Your task to perform on an android device: allow cookies in the chrome app Image 0: 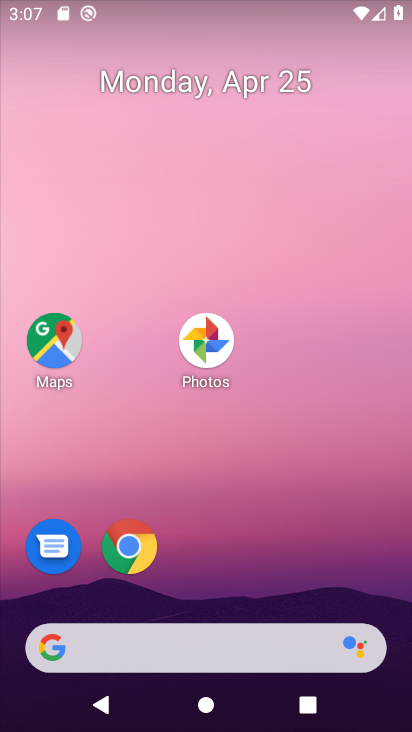
Step 0: drag from (270, 380) to (314, 7)
Your task to perform on an android device: allow cookies in the chrome app Image 1: 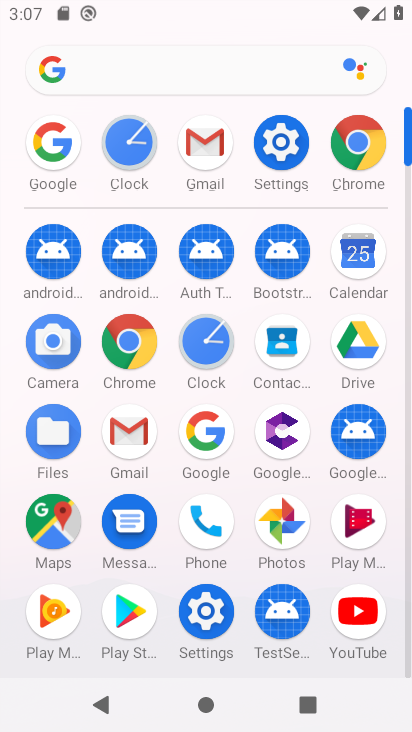
Step 1: click (357, 135)
Your task to perform on an android device: allow cookies in the chrome app Image 2: 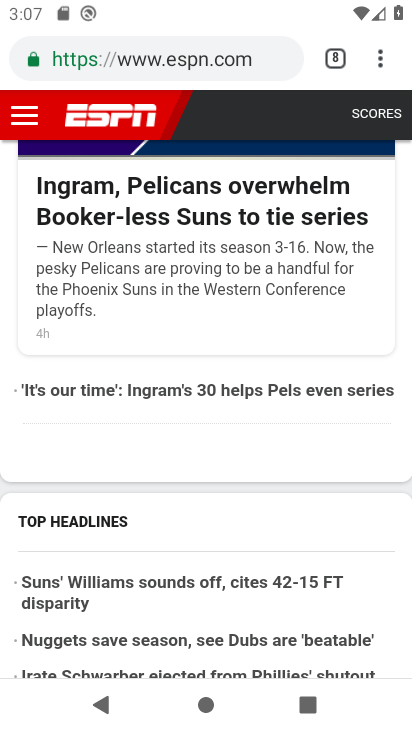
Step 2: click (366, 53)
Your task to perform on an android device: allow cookies in the chrome app Image 3: 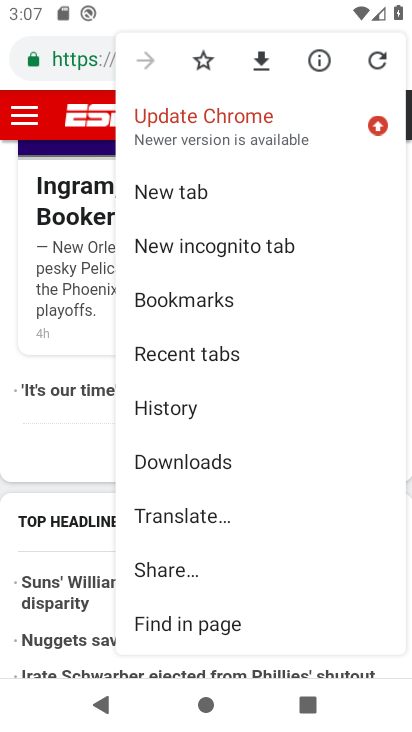
Step 3: drag from (218, 606) to (261, 217)
Your task to perform on an android device: allow cookies in the chrome app Image 4: 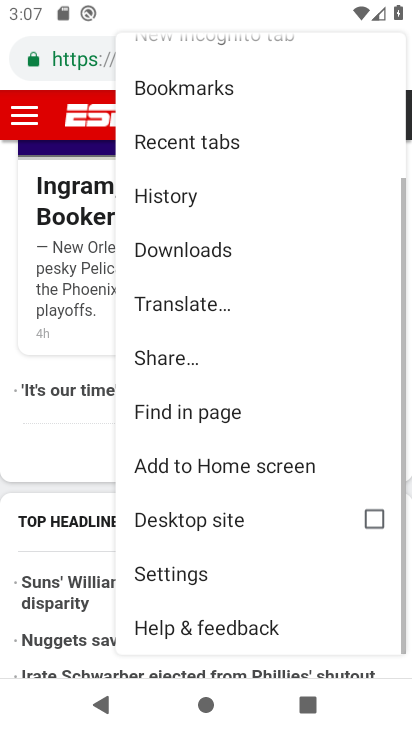
Step 4: click (170, 566)
Your task to perform on an android device: allow cookies in the chrome app Image 5: 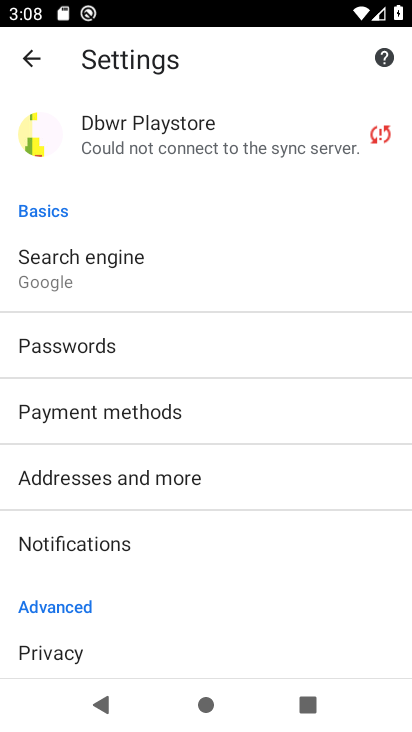
Step 5: drag from (196, 580) to (223, 232)
Your task to perform on an android device: allow cookies in the chrome app Image 6: 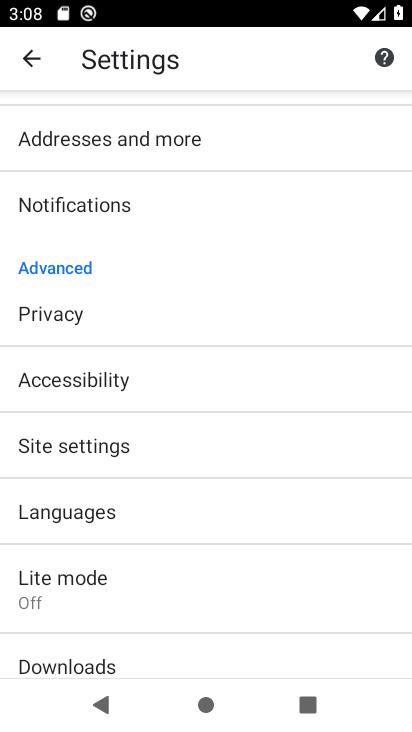
Step 6: click (136, 444)
Your task to perform on an android device: allow cookies in the chrome app Image 7: 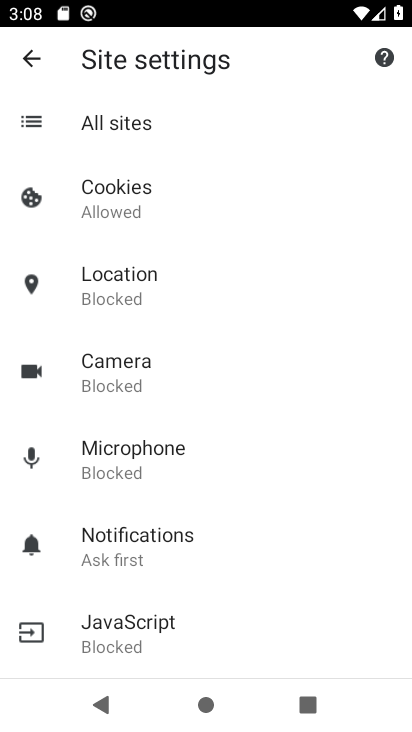
Step 7: click (156, 193)
Your task to perform on an android device: allow cookies in the chrome app Image 8: 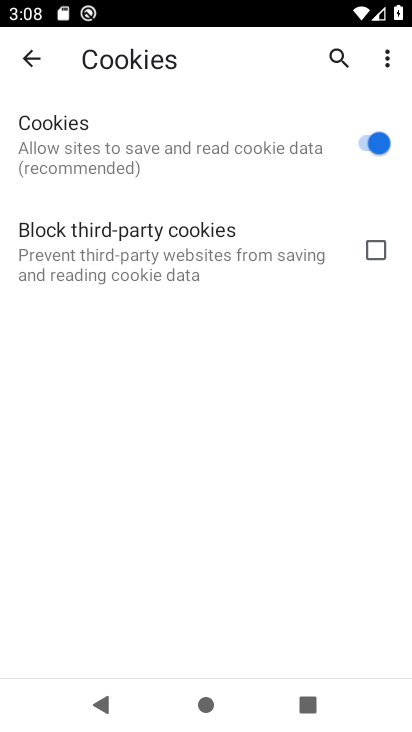
Step 8: task complete